Your task to perform on an android device: open app "PlayWell" Image 0: 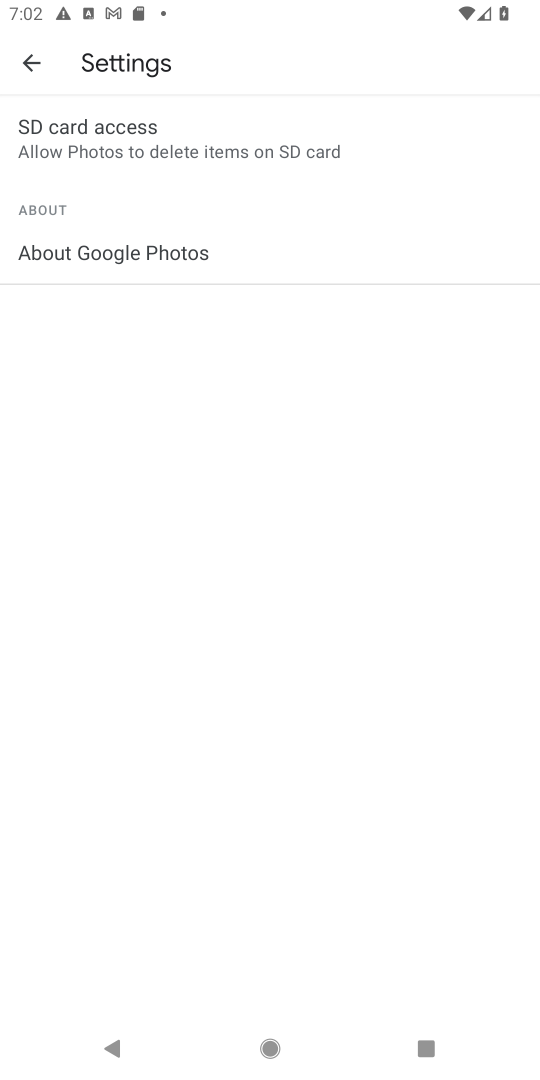
Step 0: press home button
Your task to perform on an android device: open app "PlayWell" Image 1: 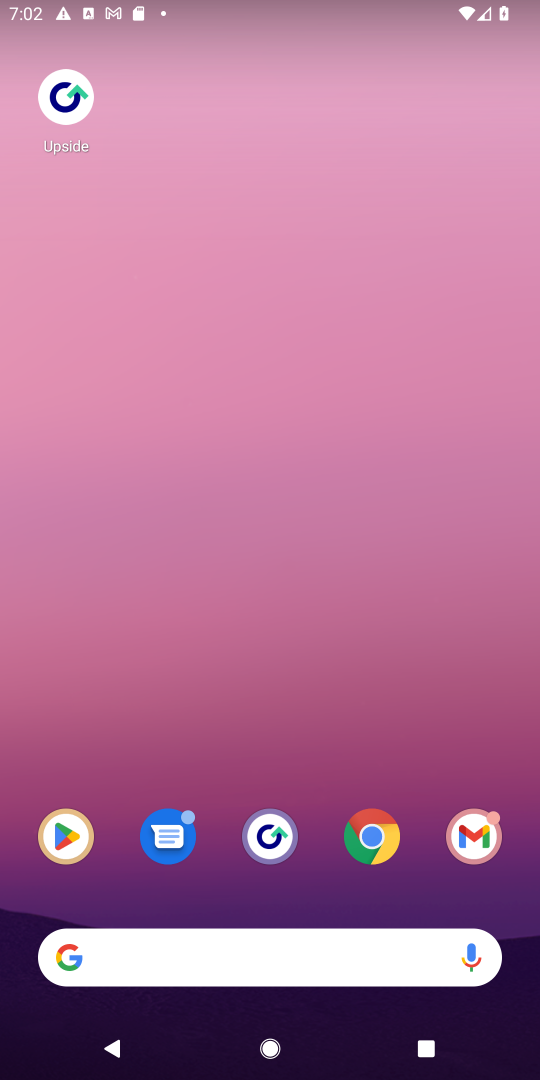
Step 1: click (60, 828)
Your task to perform on an android device: open app "PlayWell" Image 2: 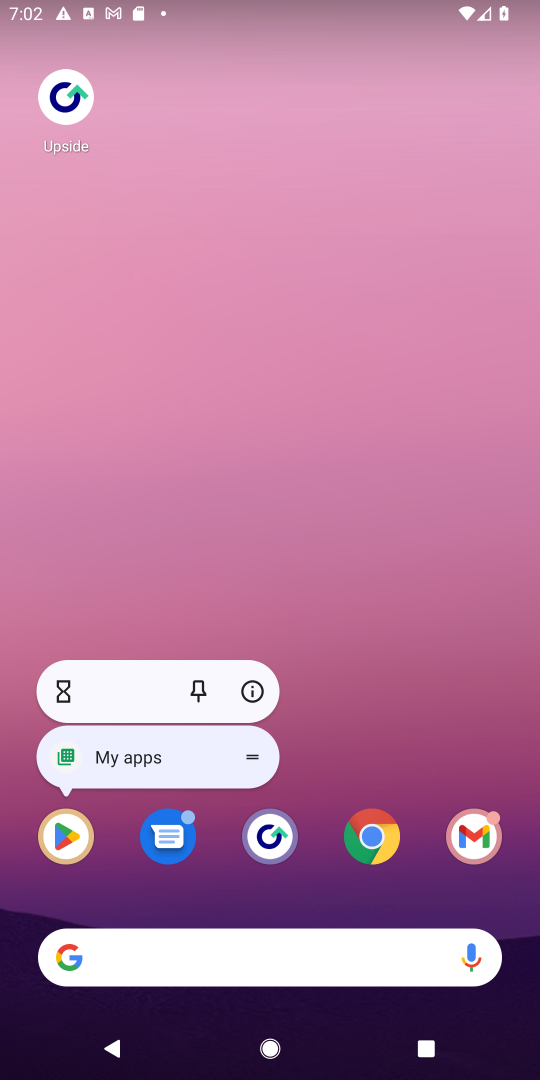
Step 2: click (60, 827)
Your task to perform on an android device: open app "PlayWell" Image 3: 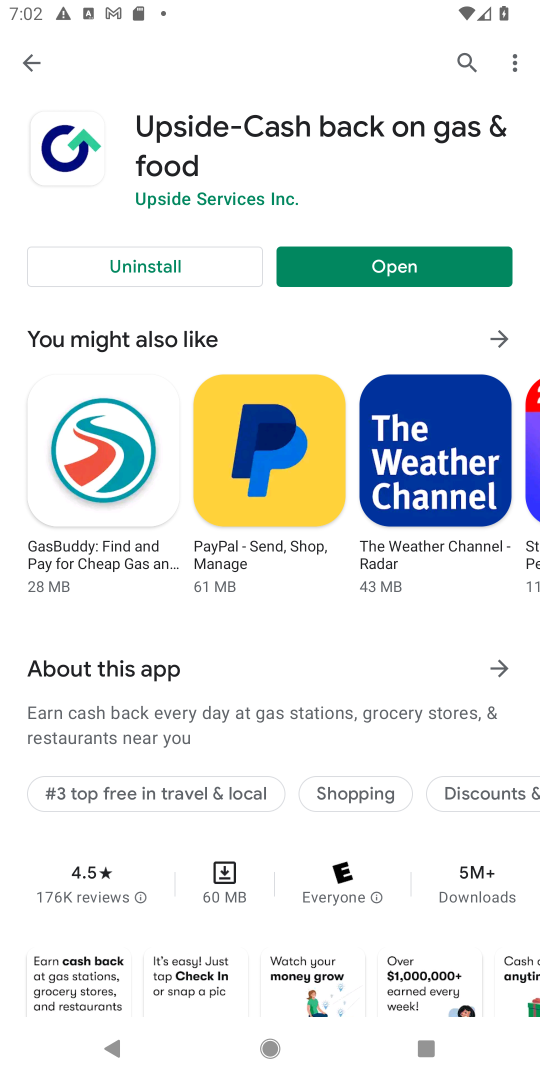
Step 3: click (463, 56)
Your task to perform on an android device: open app "PlayWell" Image 4: 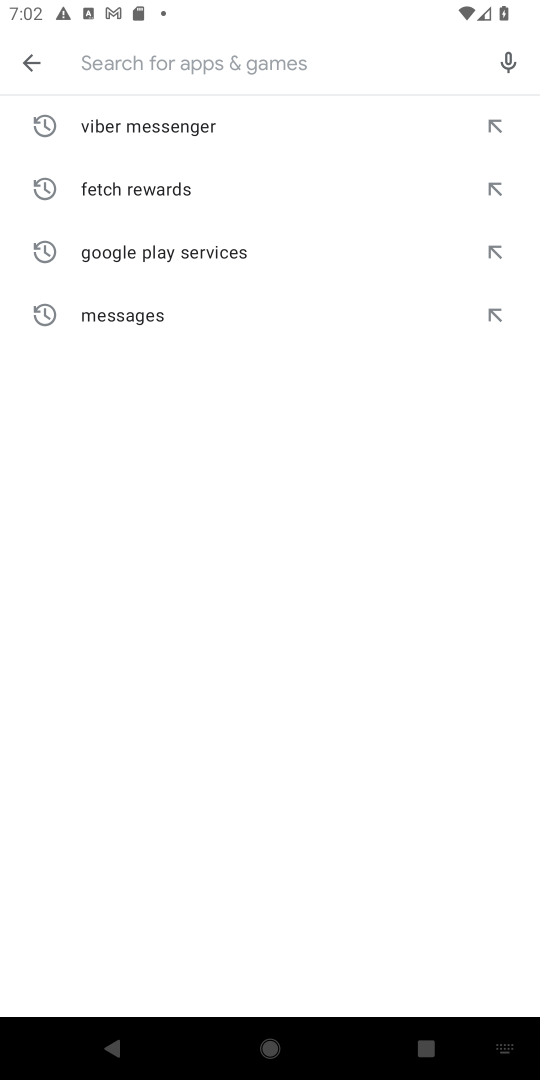
Step 4: type "PlayWell"
Your task to perform on an android device: open app "PlayWell" Image 5: 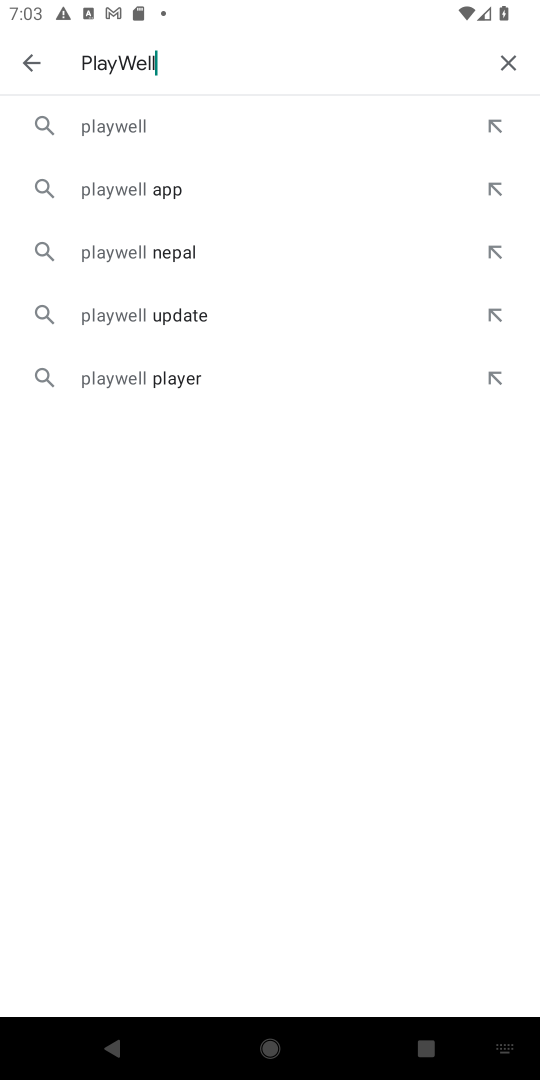
Step 5: click (145, 120)
Your task to perform on an android device: open app "PlayWell" Image 6: 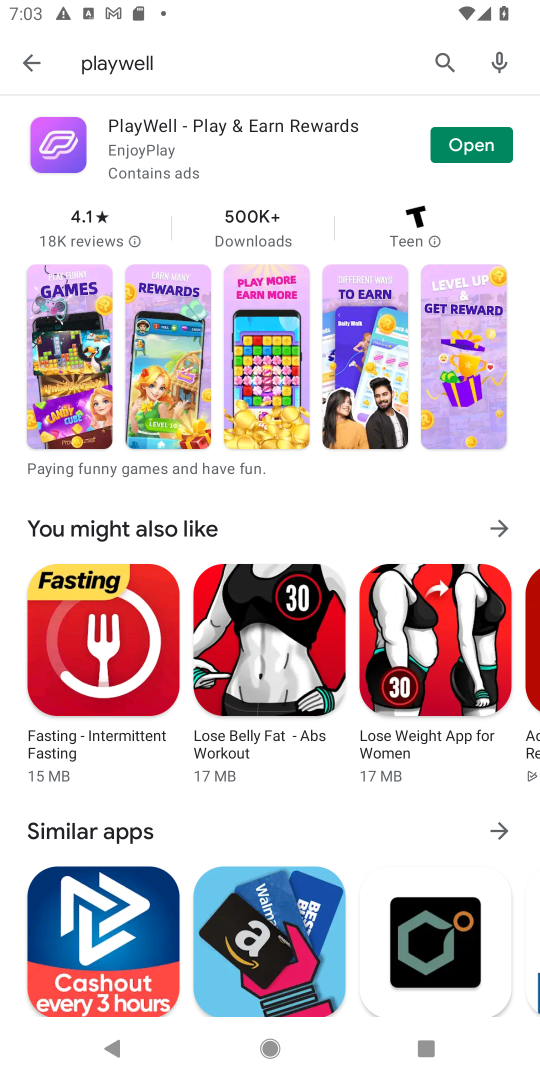
Step 6: click (498, 142)
Your task to perform on an android device: open app "PlayWell" Image 7: 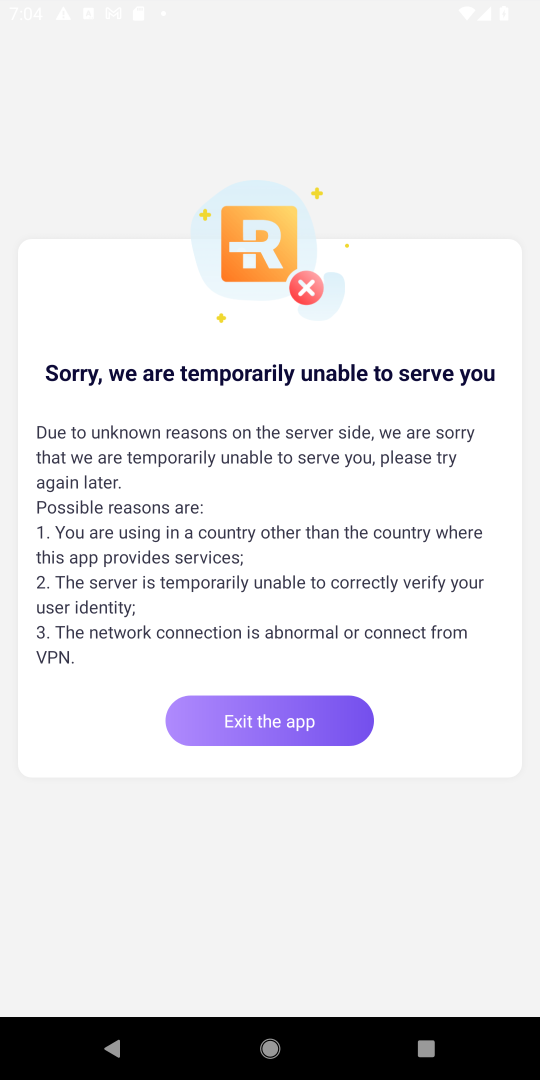
Step 7: task complete